Your task to perform on an android device: set the timer Image 0: 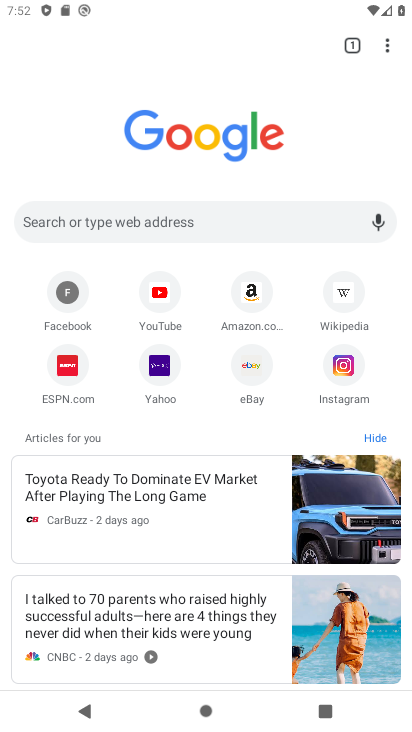
Step 0: press home button
Your task to perform on an android device: set the timer Image 1: 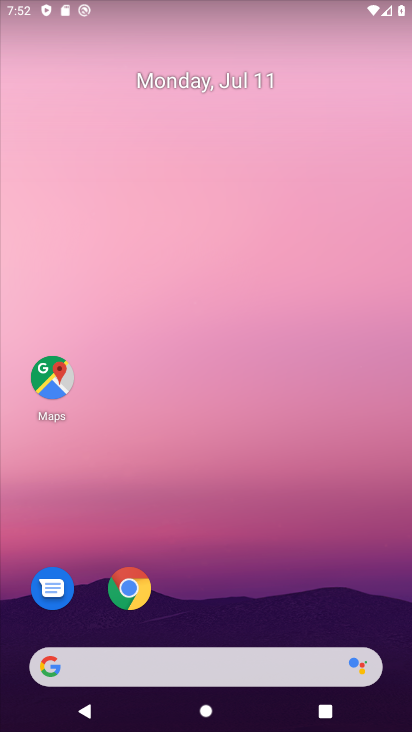
Step 1: drag from (216, 596) to (287, 22)
Your task to perform on an android device: set the timer Image 2: 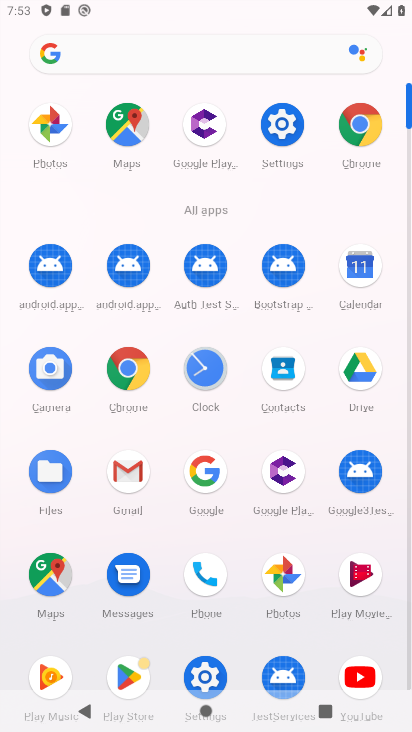
Step 2: click (209, 372)
Your task to perform on an android device: set the timer Image 3: 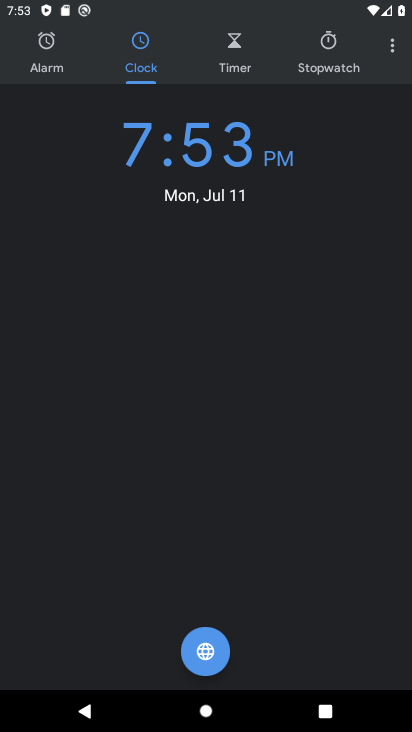
Step 3: click (232, 48)
Your task to perform on an android device: set the timer Image 4: 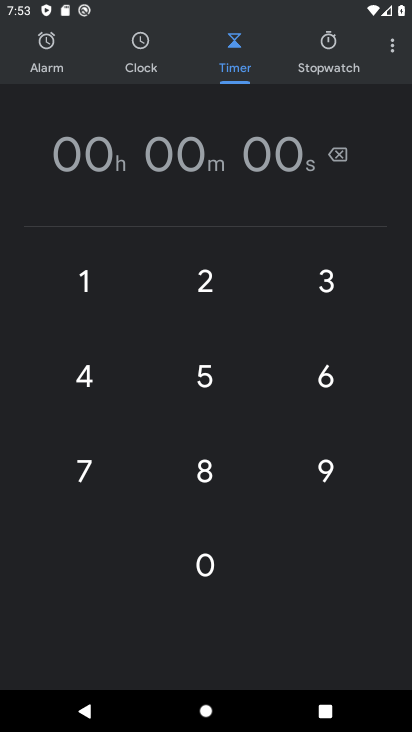
Step 4: click (216, 383)
Your task to perform on an android device: set the timer Image 5: 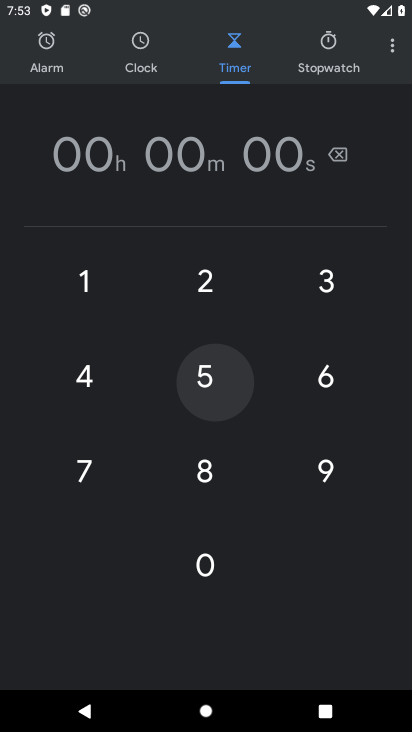
Step 5: click (216, 383)
Your task to perform on an android device: set the timer Image 6: 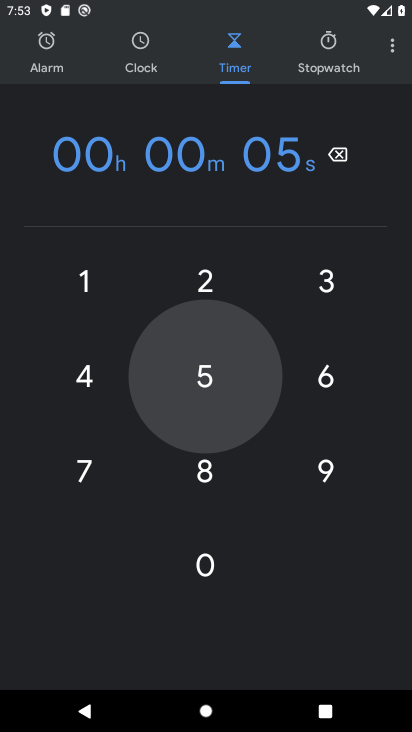
Step 6: click (189, 366)
Your task to perform on an android device: set the timer Image 7: 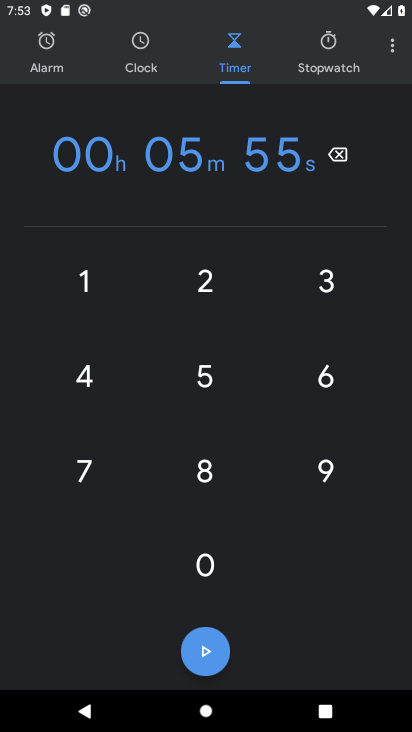
Step 7: click (84, 377)
Your task to perform on an android device: set the timer Image 8: 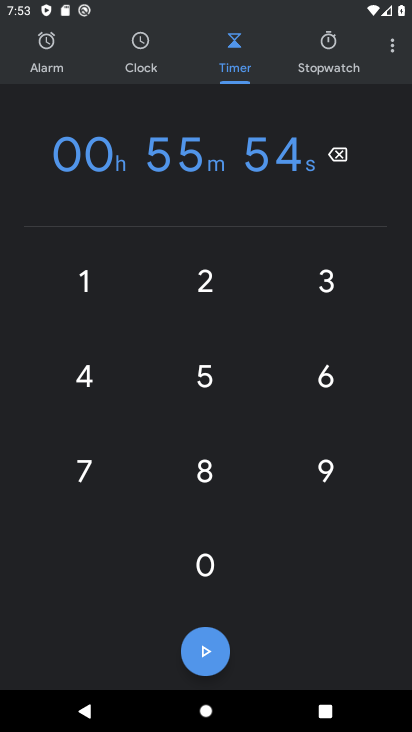
Step 8: click (86, 281)
Your task to perform on an android device: set the timer Image 9: 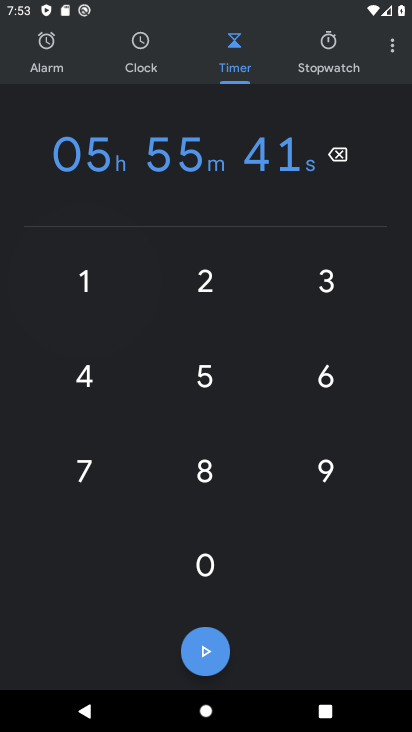
Step 9: click (209, 289)
Your task to perform on an android device: set the timer Image 10: 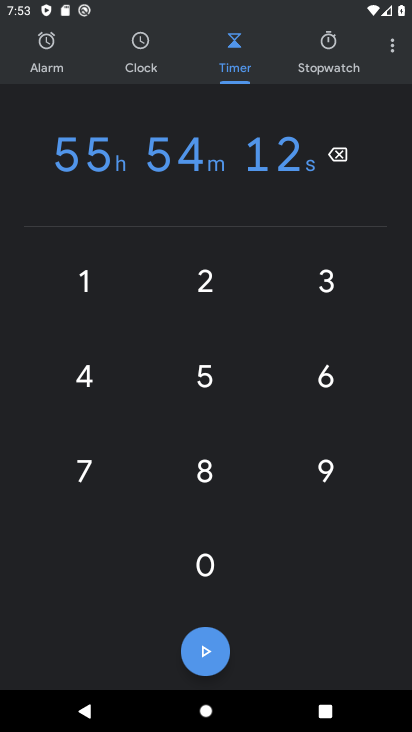
Step 10: click (82, 277)
Your task to perform on an android device: set the timer Image 11: 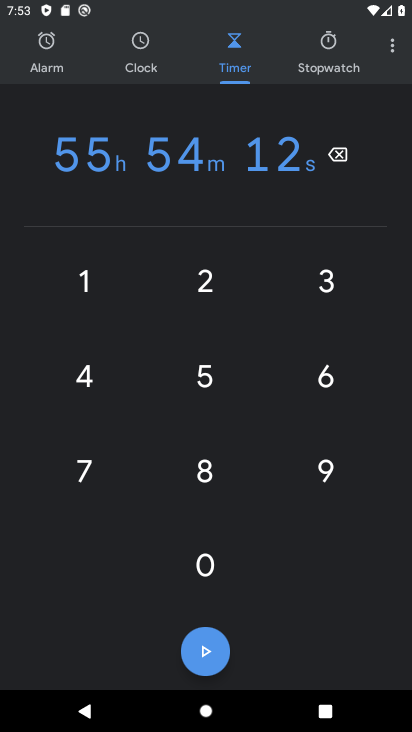
Step 11: click (223, 650)
Your task to perform on an android device: set the timer Image 12: 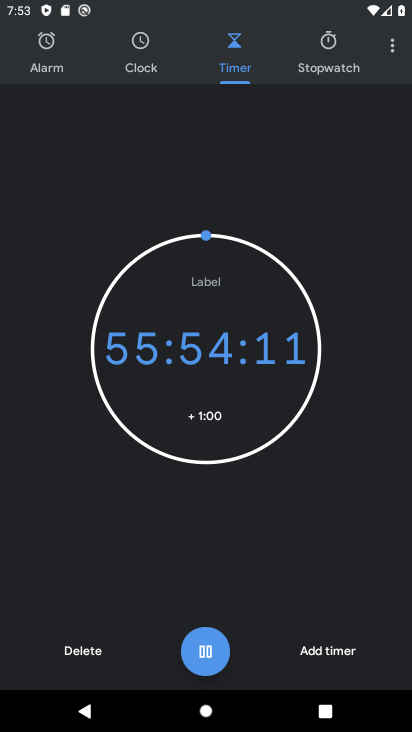
Step 12: click (203, 653)
Your task to perform on an android device: set the timer Image 13: 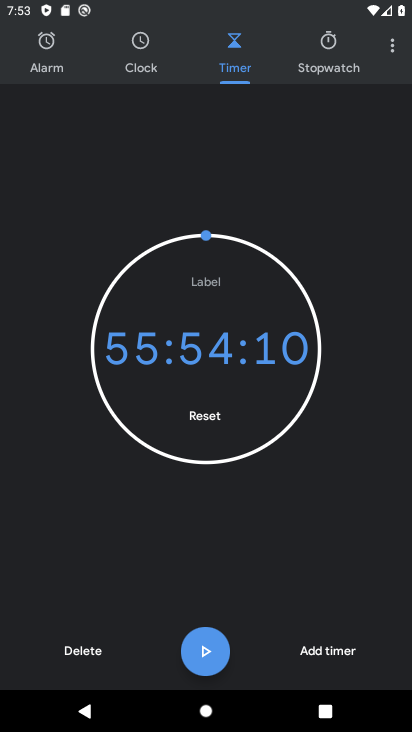
Step 13: task complete